Your task to perform on an android device: Check the news Image 0: 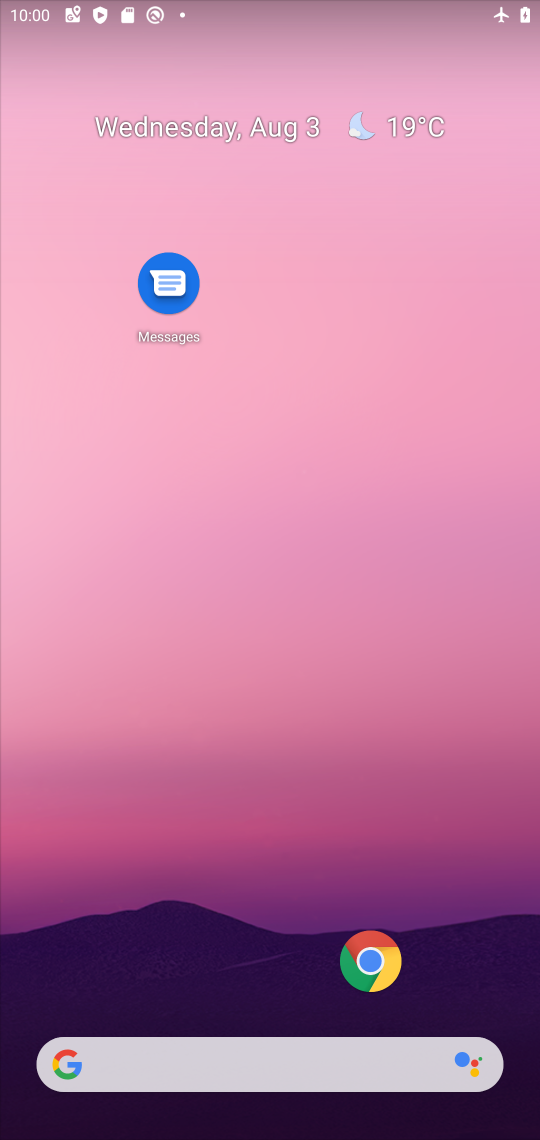
Step 0: click (360, 988)
Your task to perform on an android device: Check the news Image 1: 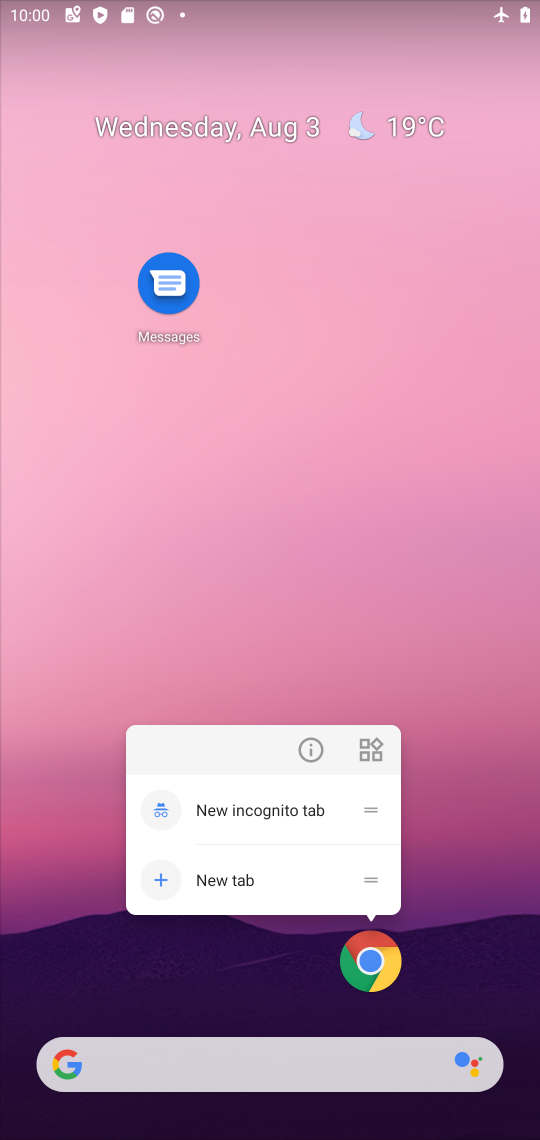
Step 1: click (266, 1019)
Your task to perform on an android device: Check the news Image 2: 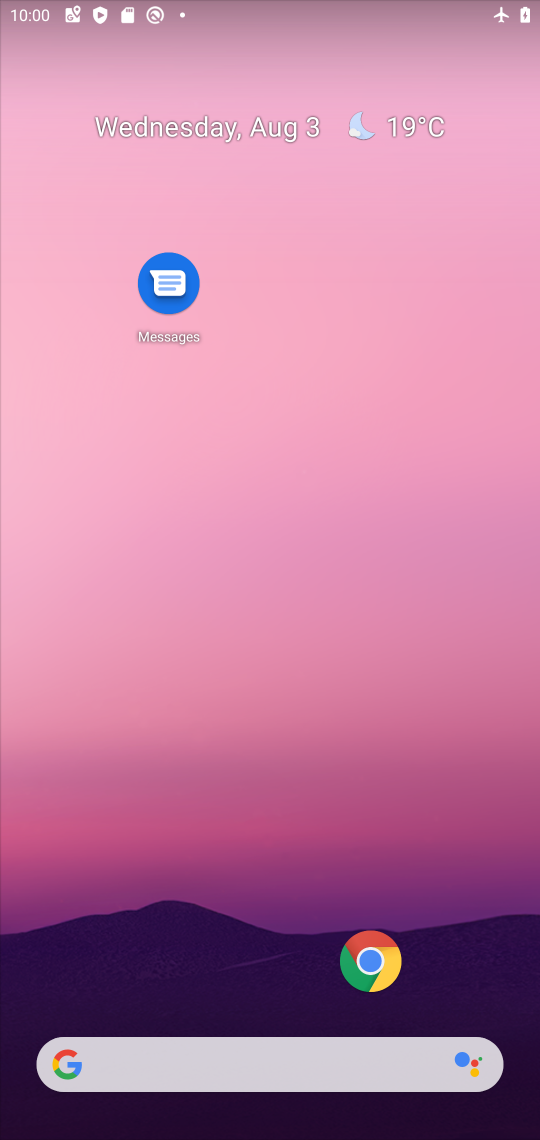
Step 2: drag from (263, 1017) to (222, 38)
Your task to perform on an android device: Check the news Image 3: 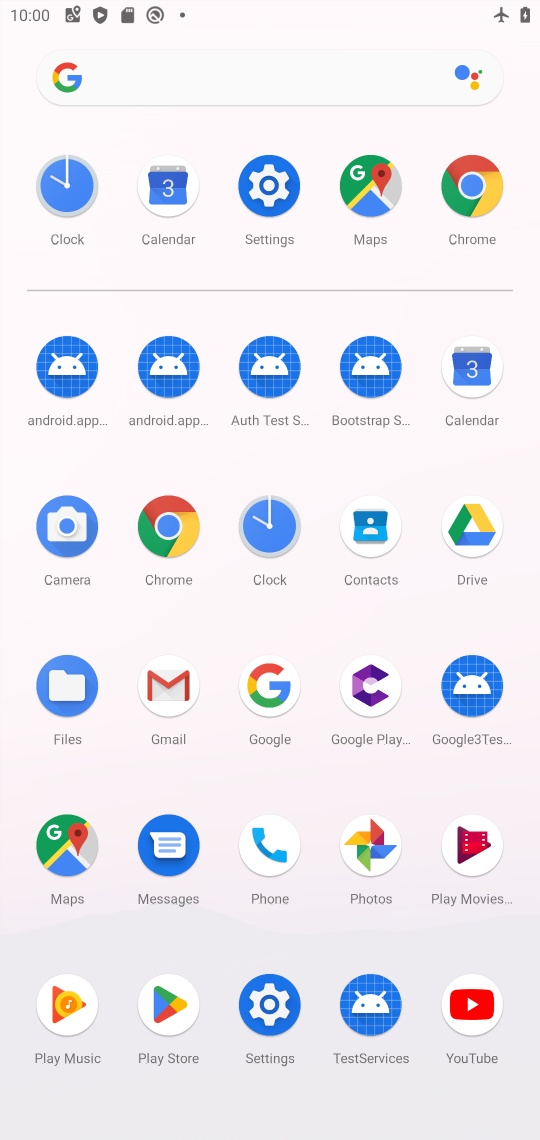
Step 3: click (282, 713)
Your task to perform on an android device: Check the news Image 4: 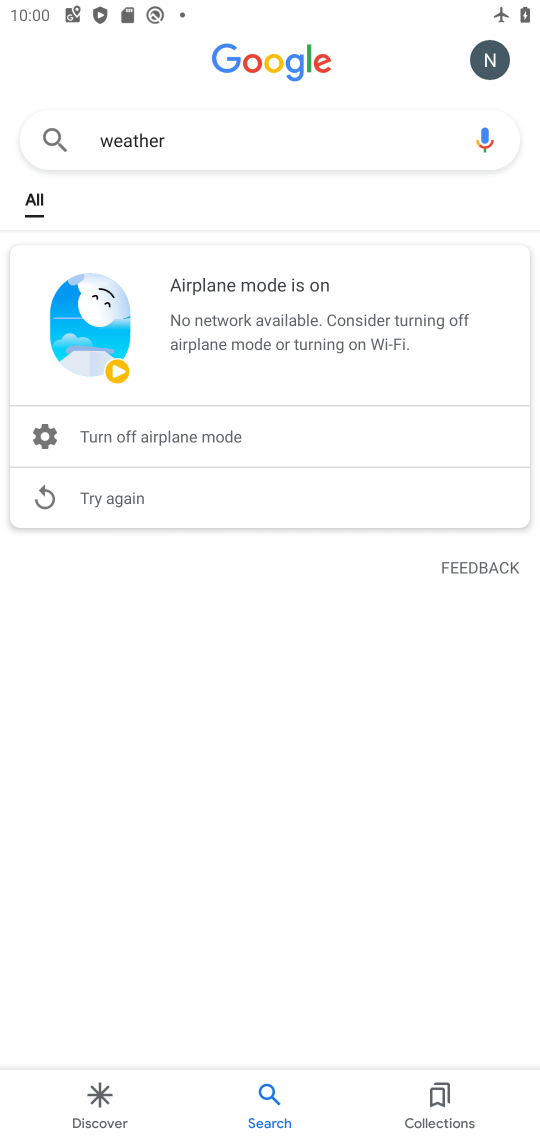
Step 4: click (187, 152)
Your task to perform on an android device: Check the news Image 5: 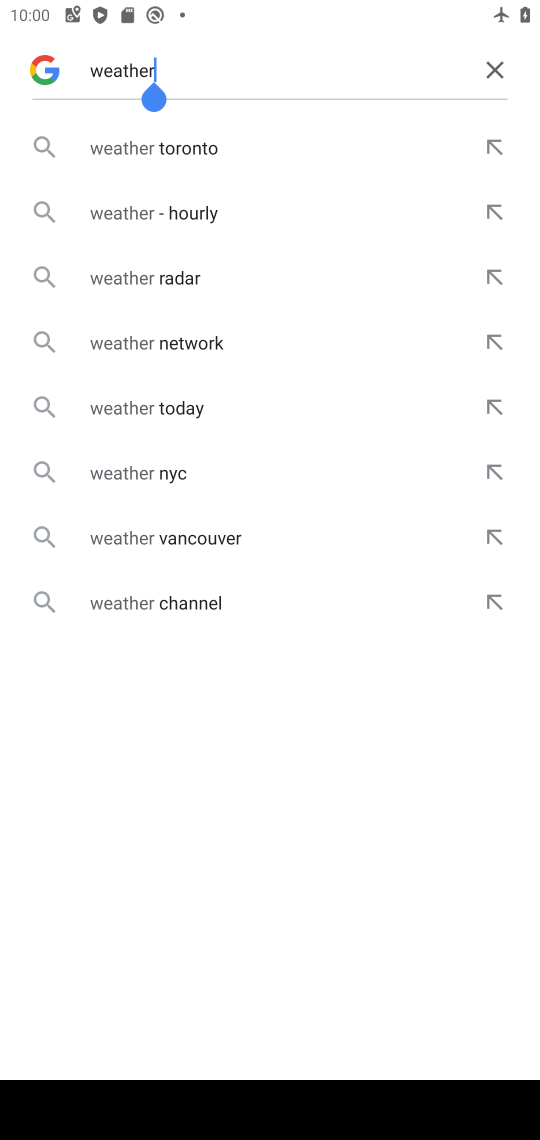
Step 5: click (478, 67)
Your task to perform on an android device: Check the news Image 6: 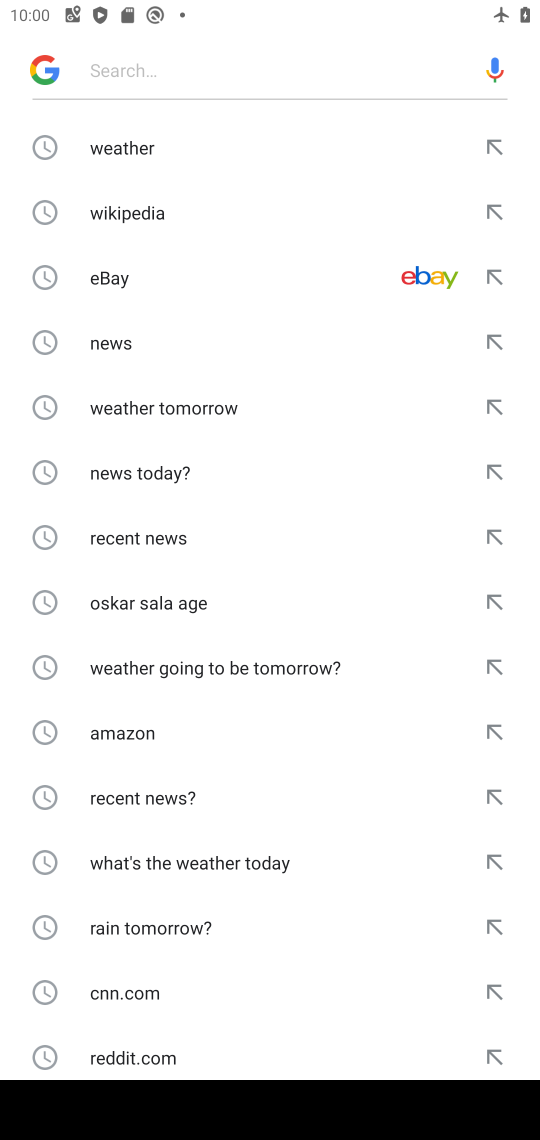
Step 6: click (94, 358)
Your task to perform on an android device: Check the news Image 7: 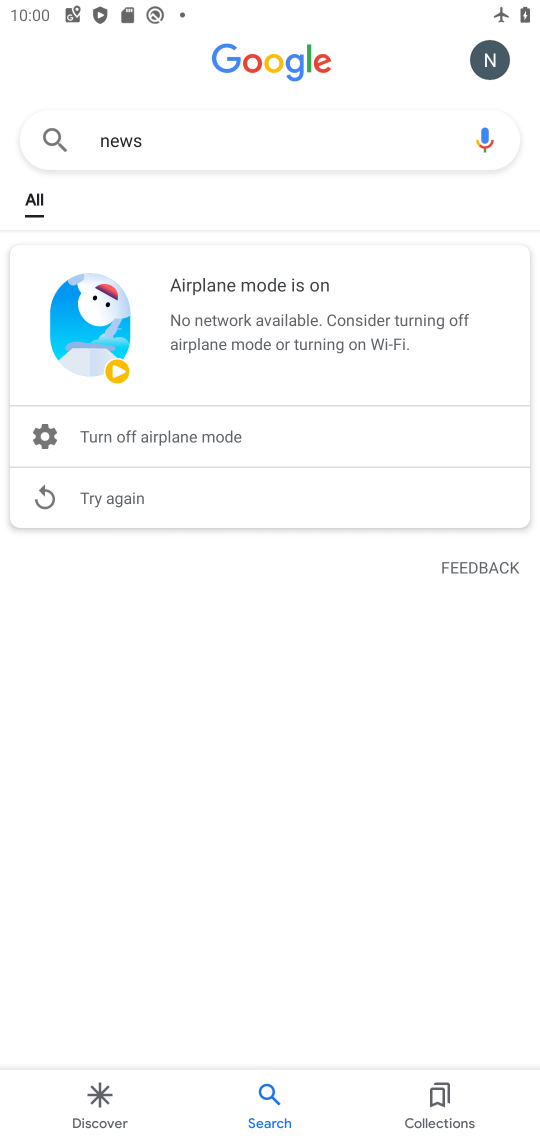
Step 7: task complete